Your task to perform on an android device: turn vacation reply on in the gmail app Image 0: 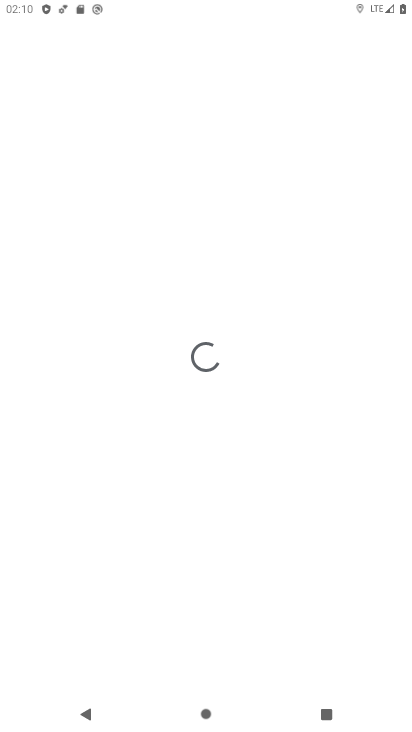
Step 0: press home button
Your task to perform on an android device: turn vacation reply on in the gmail app Image 1: 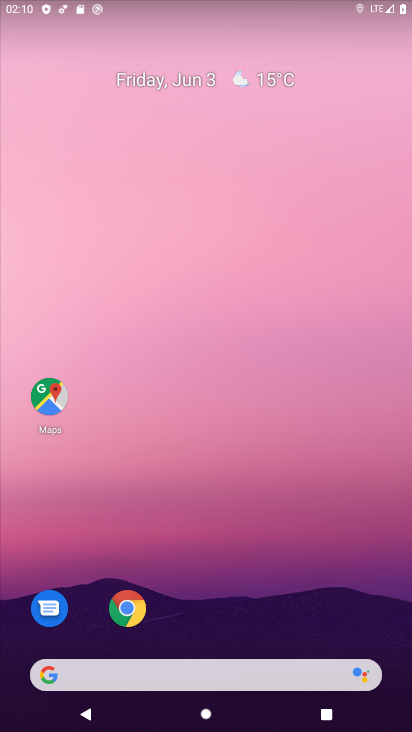
Step 1: drag from (267, 590) to (237, 225)
Your task to perform on an android device: turn vacation reply on in the gmail app Image 2: 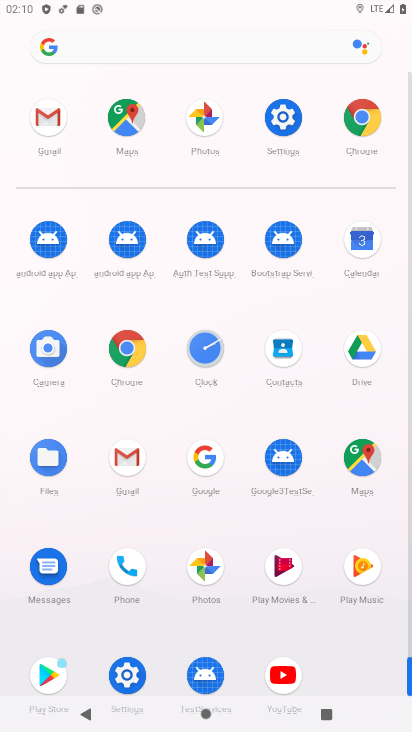
Step 2: click (38, 125)
Your task to perform on an android device: turn vacation reply on in the gmail app Image 3: 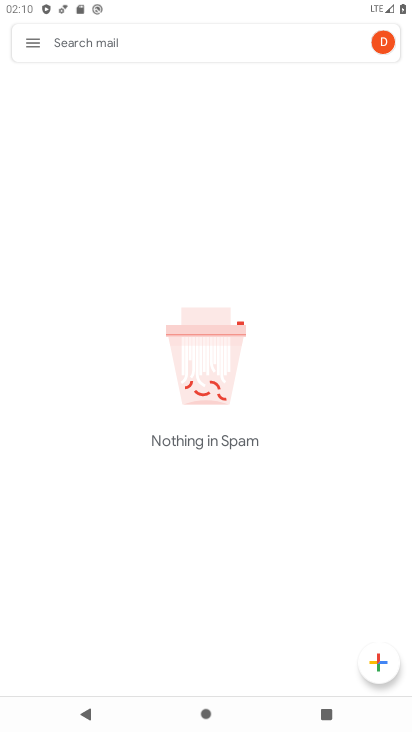
Step 3: click (30, 39)
Your task to perform on an android device: turn vacation reply on in the gmail app Image 4: 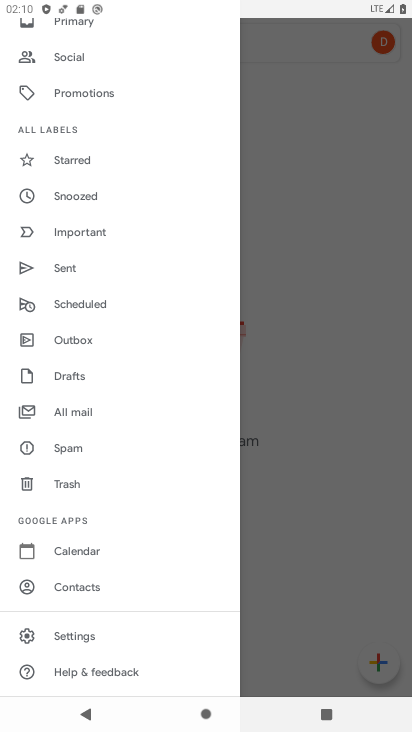
Step 4: click (90, 631)
Your task to perform on an android device: turn vacation reply on in the gmail app Image 5: 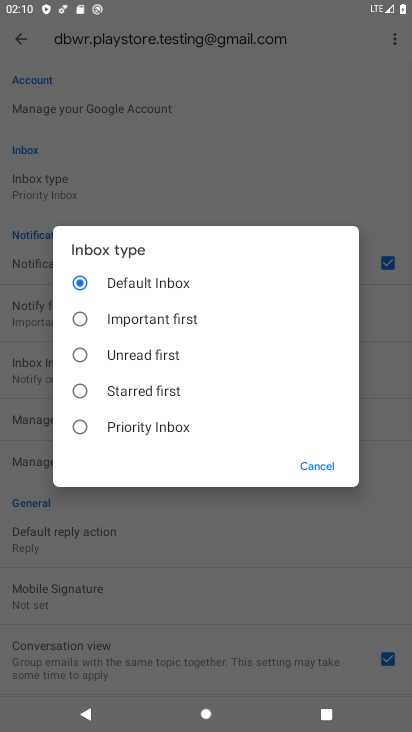
Step 5: click (318, 461)
Your task to perform on an android device: turn vacation reply on in the gmail app Image 6: 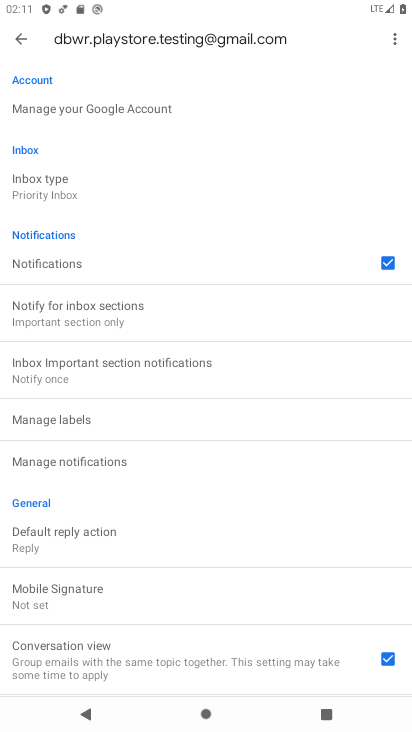
Step 6: drag from (176, 454) to (232, 60)
Your task to perform on an android device: turn vacation reply on in the gmail app Image 7: 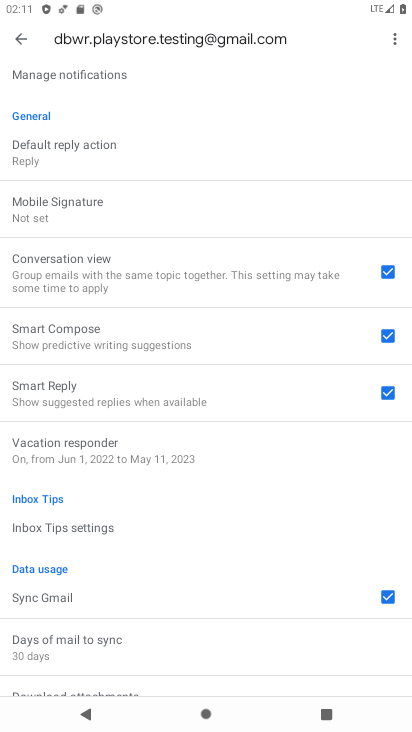
Step 7: click (166, 456)
Your task to perform on an android device: turn vacation reply on in the gmail app Image 8: 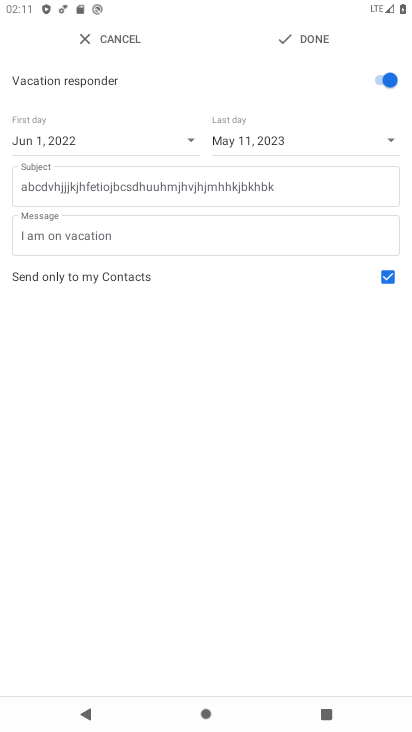
Step 8: task complete